Your task to perform on an android device: set default search engine in the chrome app Image 0: 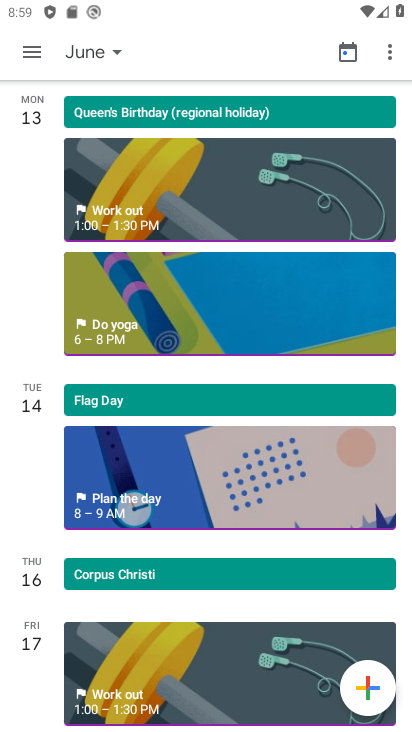
Step 0: press home button
Your task to perform on an android device: set default search engine in the chrome app Image 1: 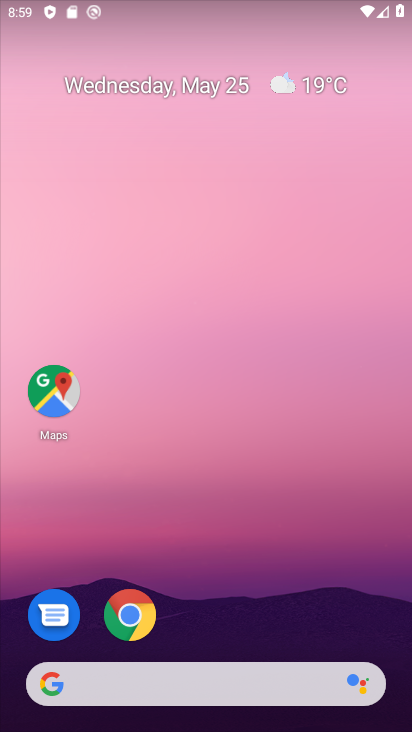
Step 1: drag from (232, 711) to (316, 33)
Your task to perform on an android device: set default search engine in the chrome app Image 2: 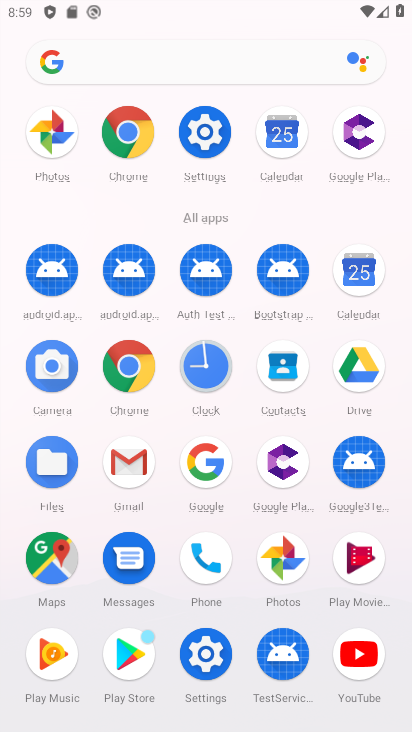
Step 2: click (129, 147)
Your task to perform on an android device: set default search engine in the chrome app Image 3: 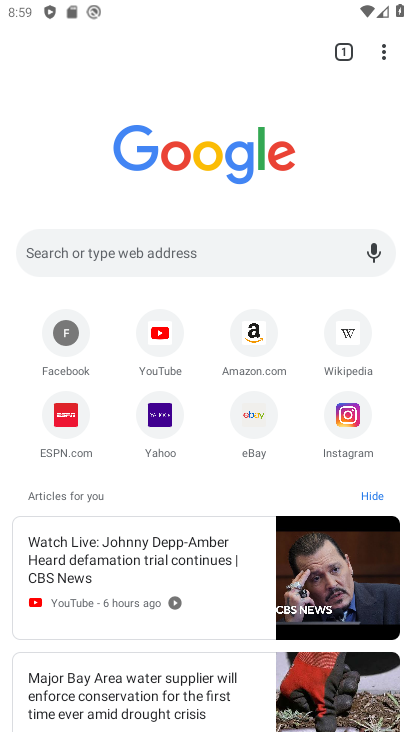
Step 3: click (386, 53)
Your task to perform on an android device: set default search engine in the chrome app Image 4: 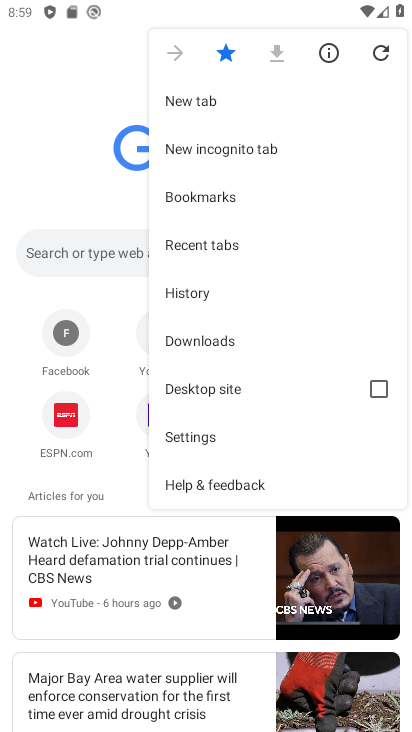
Step 4: click (195, 436)
Your task to perform on an android device: set default search engine in the chrome app Image 5: 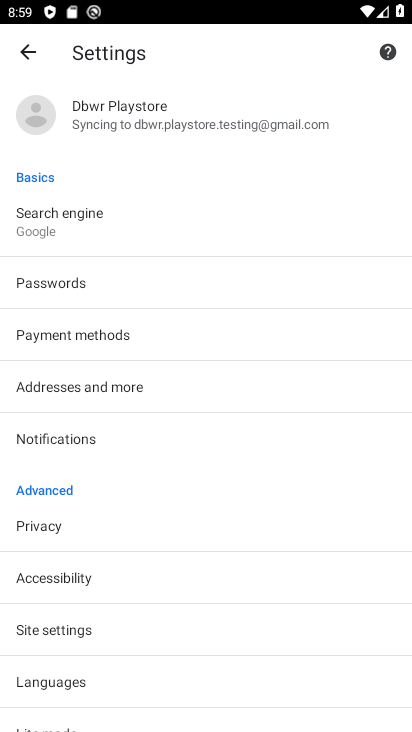
Step 5: click (103, 225)
Your task to perform on an android device: set default search engine in the chrome app Image 6: 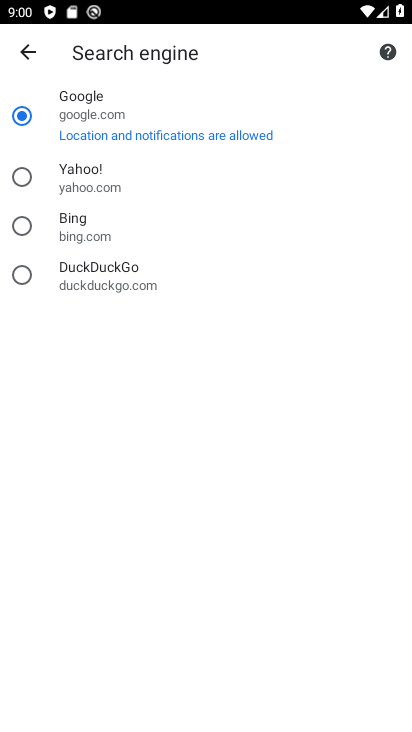
Step 6: task complete